Your task to perform on an android device: Open Amazon Image 0: 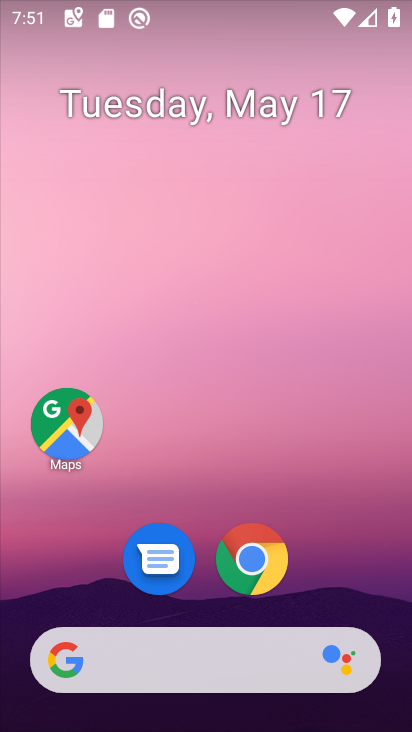
Step 0: drag from (226, 597) to (341, 3)
Your task to perform on an android device: Open Amazon Image 1: 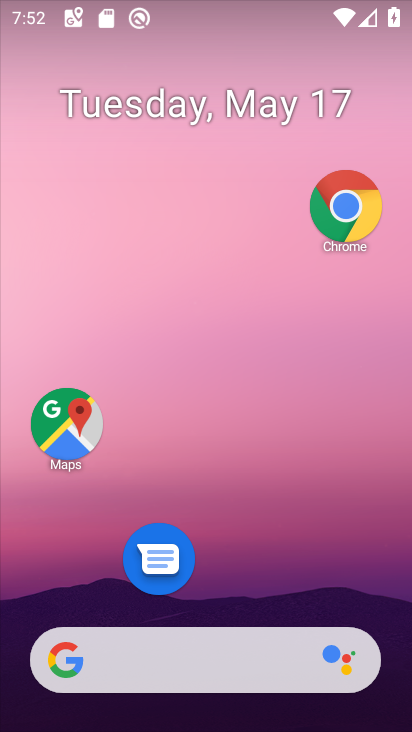
Step 1: click (372, 228)
Your task to perform on an android device: Open Amazon Image 2: 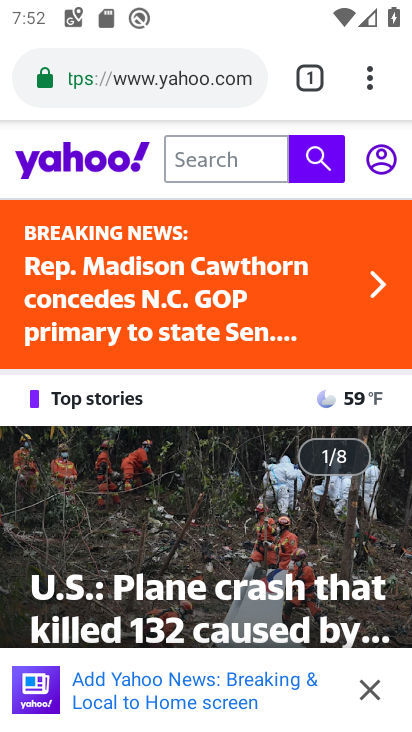
Step 2: click (178, 83)
Your task to perform on an android device: Open Amazon Image 3: 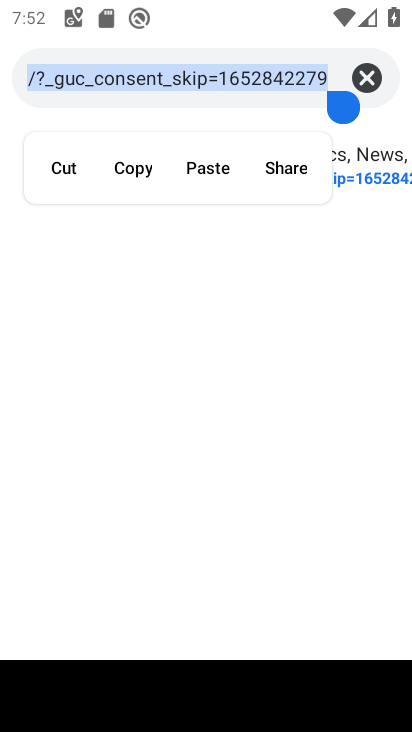
Step 3: type "a"
Your task to perform on an android device: Open Amazon Image 4: 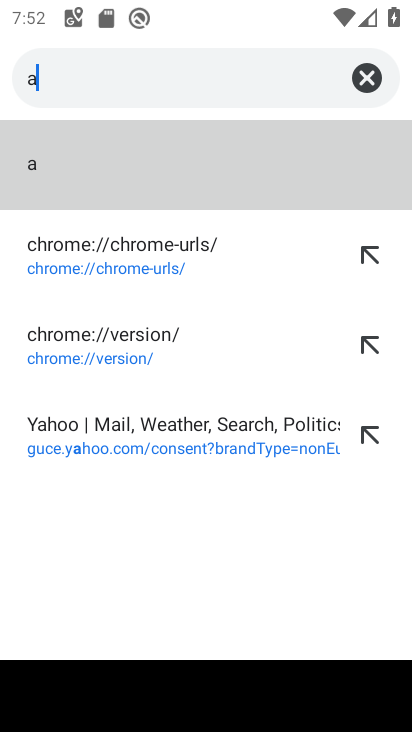
Step 4: type "mazon"
Your task to perform on an android device: Open Amazon Image 5: 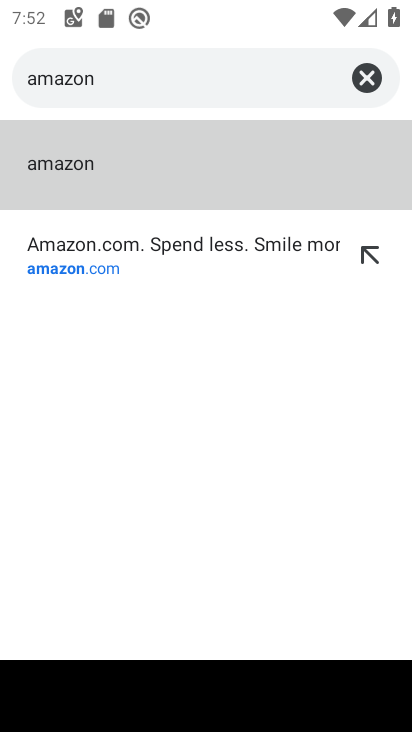
Step 5: click (81, 240)
Your task to perform on an android device: Open Amazon Image 6: 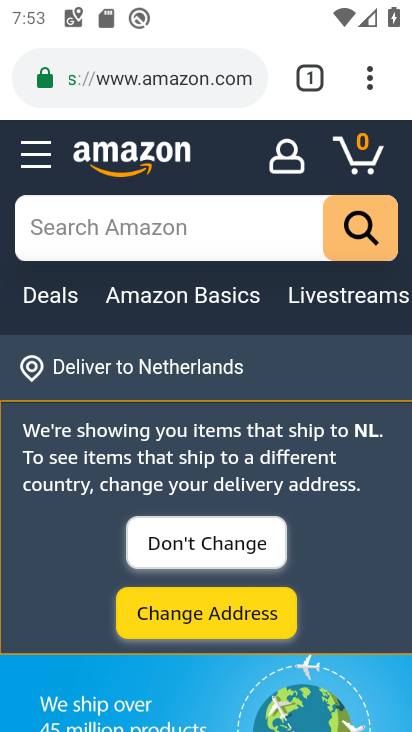
Step 6: task complete